Your task to perform on an android device: find which apps use the phone's location Image 0: 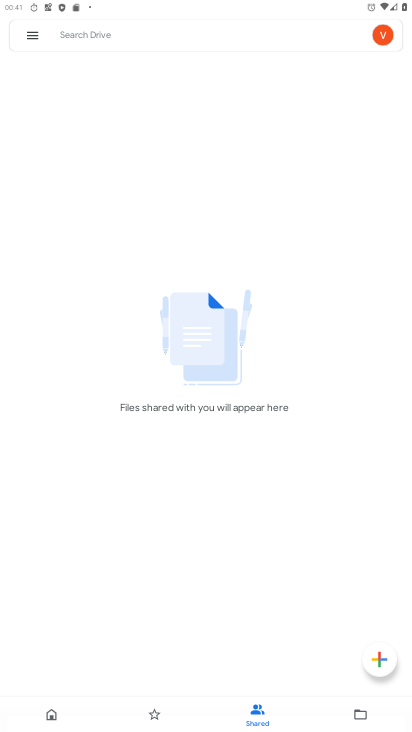
Step 0: drag from (298, 8) to (186, 725)
Your task to perform on an android device: find which apps use the phone's location Image 1: 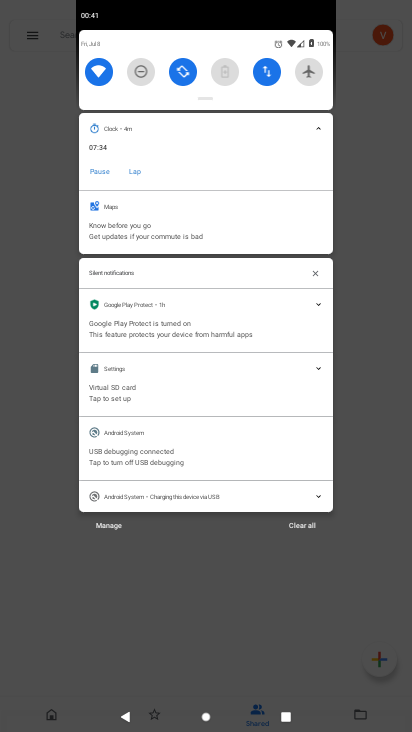
Step 1: drag from (161, 54) to (192, 585)
Your task to perform on an android device: find which apps use the phone's location Image 2: 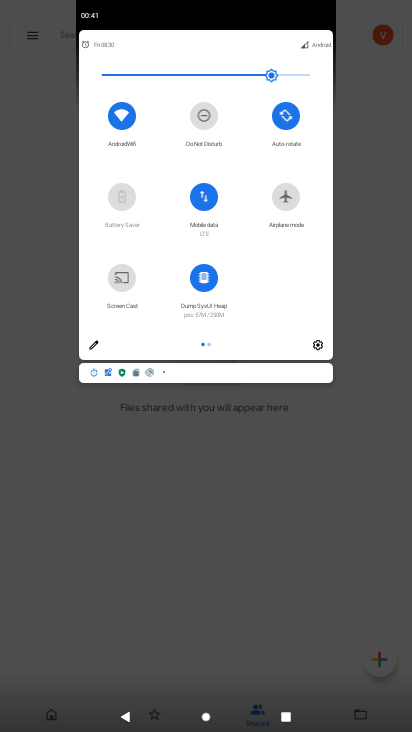
Step 2: click (326, 345)
Your task to perform on an android device: find which apps use the phone's location Image 3: 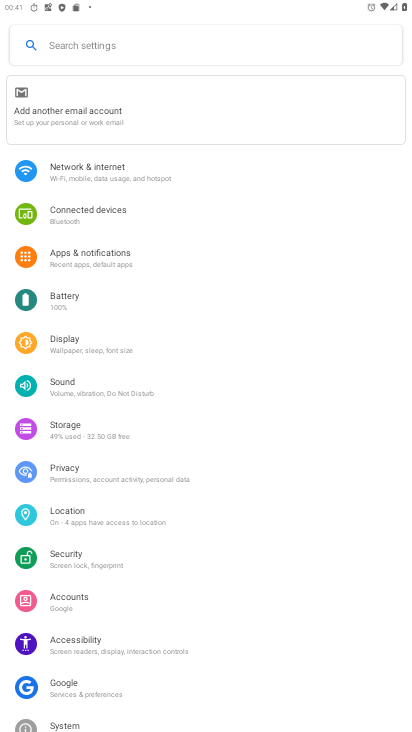
Step 3: click (105, 524)
Your task to perform on an android device: find which apps use the phone's location Image 4: 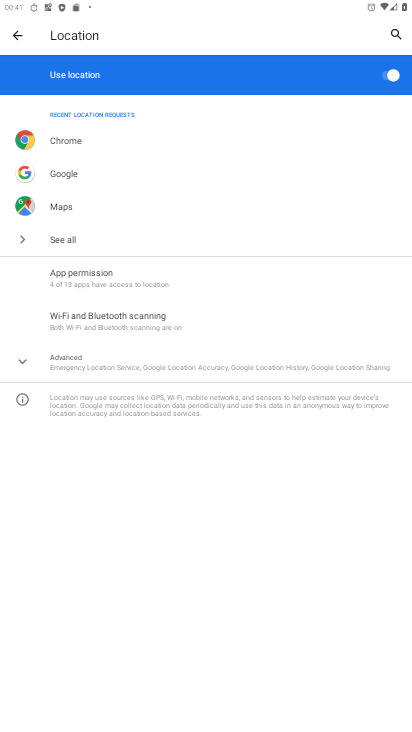
Step 4: click (83, 246)
Your task to perform on an android device: find which apps use the phone's location Image 5: 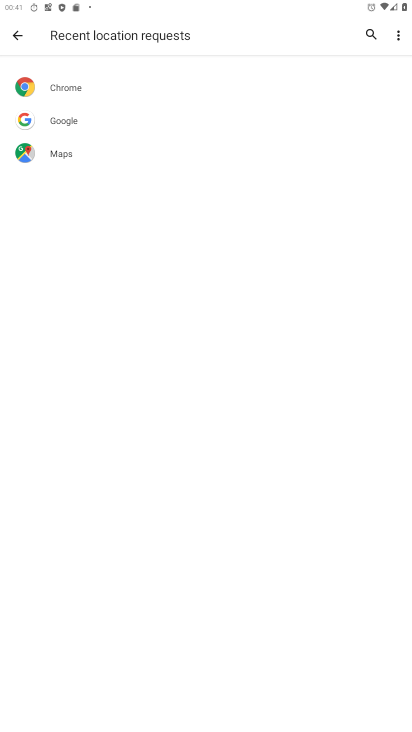
Step 5: task complete